Your task to perform on an android device: Open the calendar app, open the side menu, and click the "Day" option Image 0: 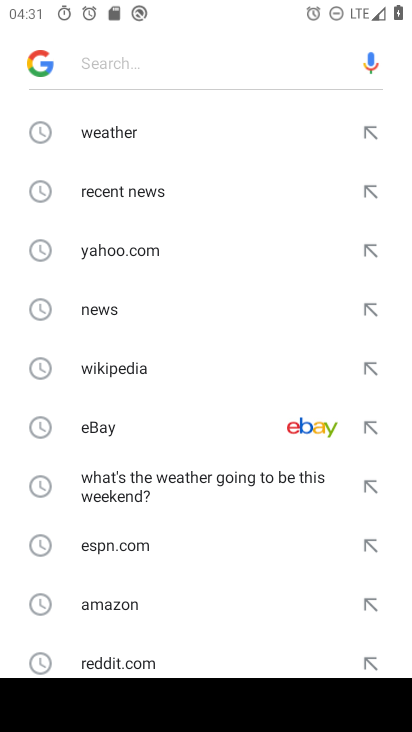
Step 0: press home button
Your task to perform on an android device: Open the calendar app, open the side menu, and click the "Day" option Image 1: 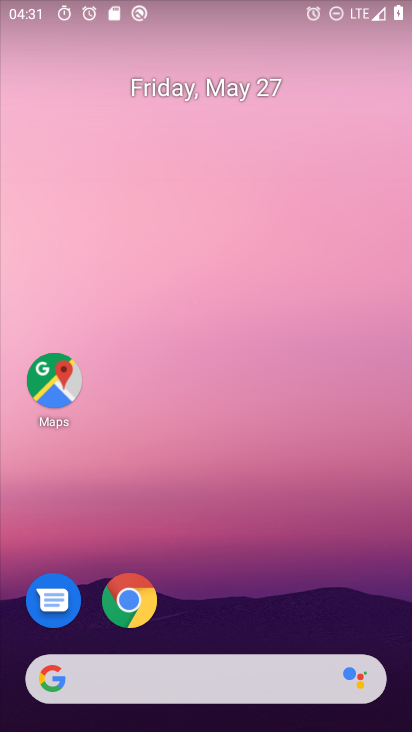
Step 1: drag from (220, 723) to (186, 140)
Your task to perform on an android device: Open the calendar app, open the side menu, and click the "Day" option Image 2: 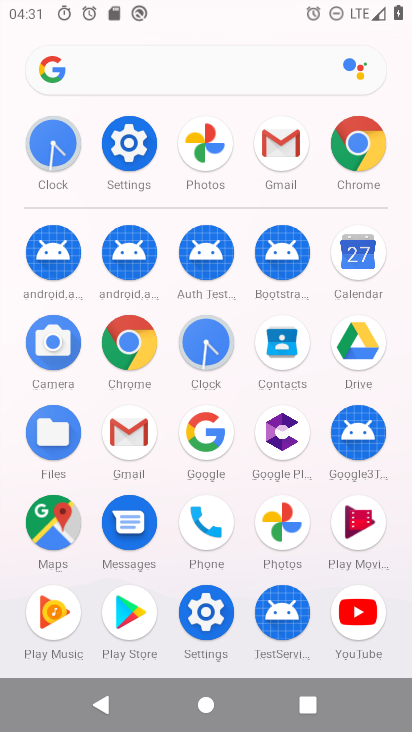
Step 2: click (364, 245)
Your task to perform on an android device: Open the calendar app, open the side menu, and click the "Day" option Image 3: 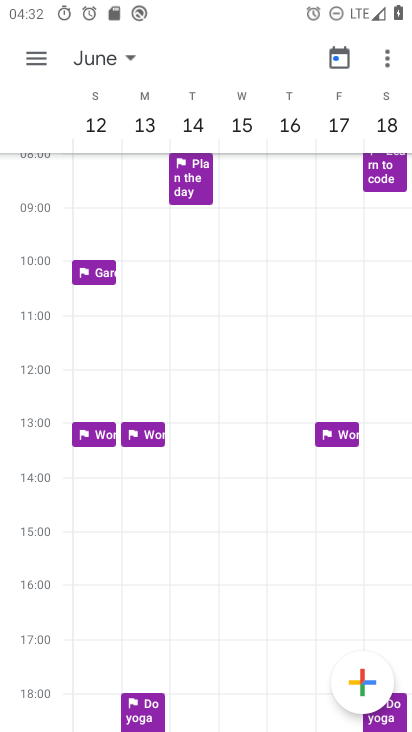
Step 3: click (31, 58)
Your task to perform on an android device: Open the calendar app, open the side menu, and click the "Day" option Image 4: 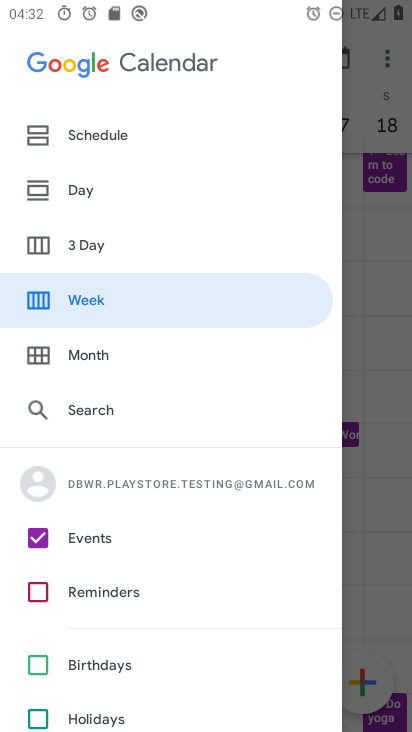
Step 4: click (84, 185)
Your task to perform on an android device: Open the calendar app, open the side menu, and click the "Day" option Image 5: 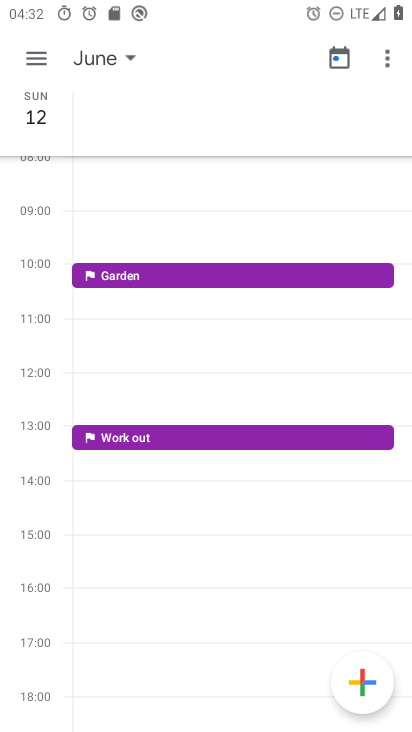
Step 5: task complete